Your task to perform on an android device: Search for seafood restaurants on Google Maps Image 0: 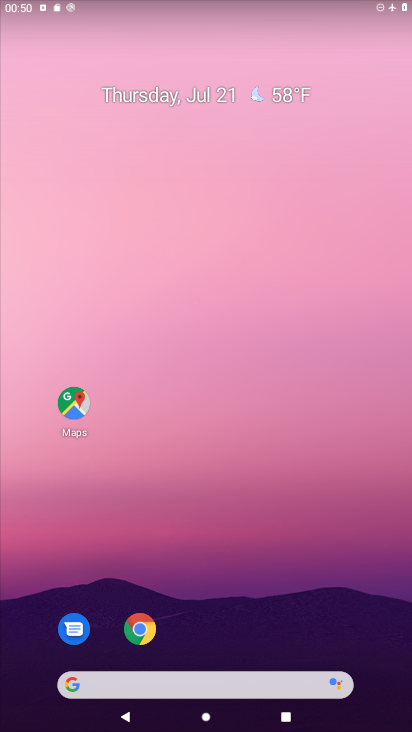
Step 0: click (80, 426)
Your task to perform on an android device: Search for seafood restaurants on Google Maps Image 1: 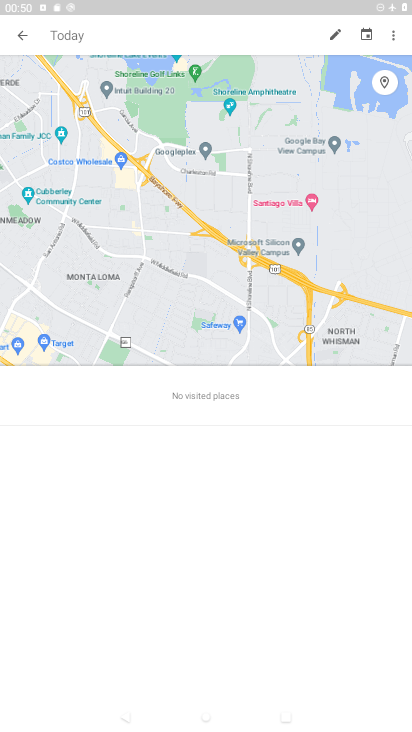
Step 1: click (22, 47)
Your task to perform on an android device: Search for seafood restaurants on Google Maps Image 2: 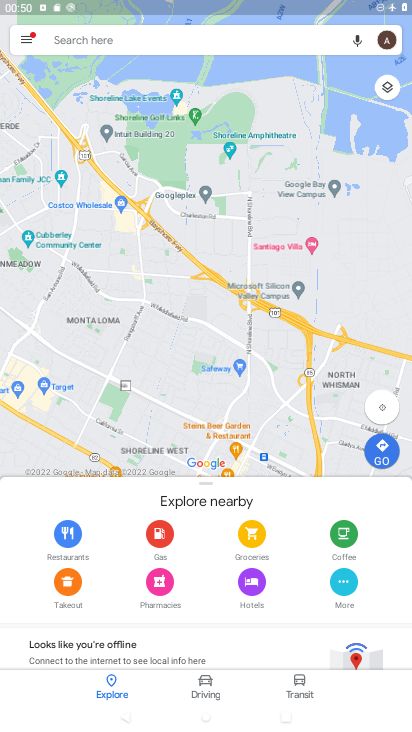
Step 2: click (91, 40)
Your task to perform on an android device: Search for seafood restaurants on Google Maps Image 3: 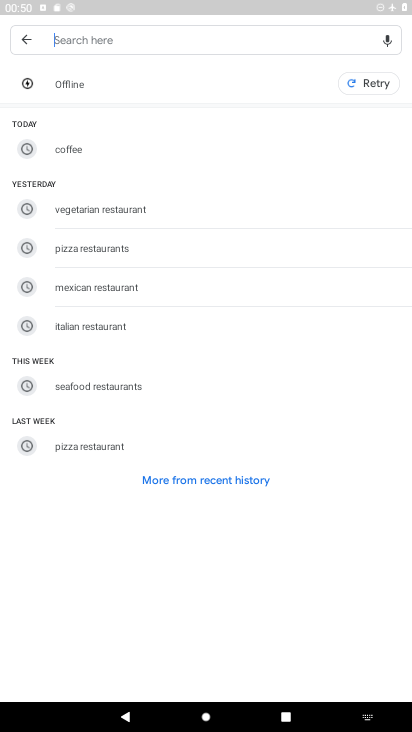
Step 3: click (63, 397)
Your task to perform on an android device: Search for seafood restaurants on Google Maps Image 4: 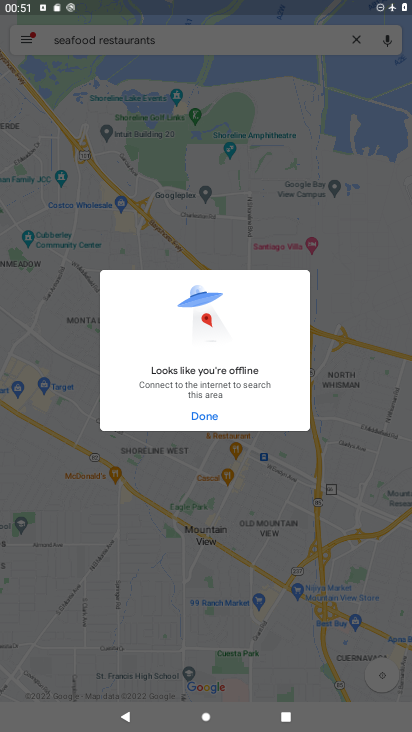
Step 4: task complete